Your task to perform on an android device: What is the news today? Image 0: 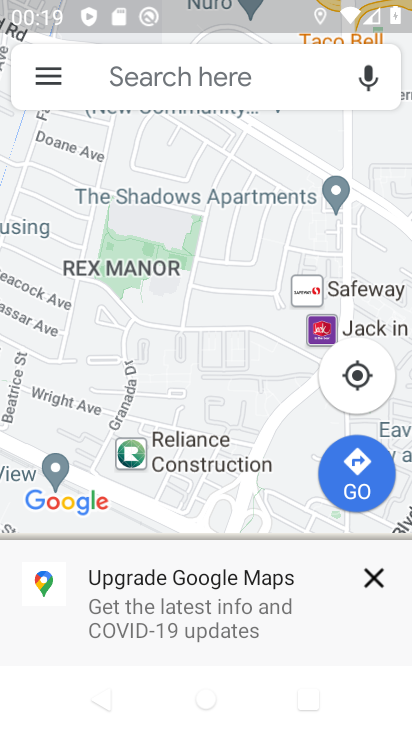
Step 0: press back button
Your task to perform on an android device: What is the news today? Image 1: 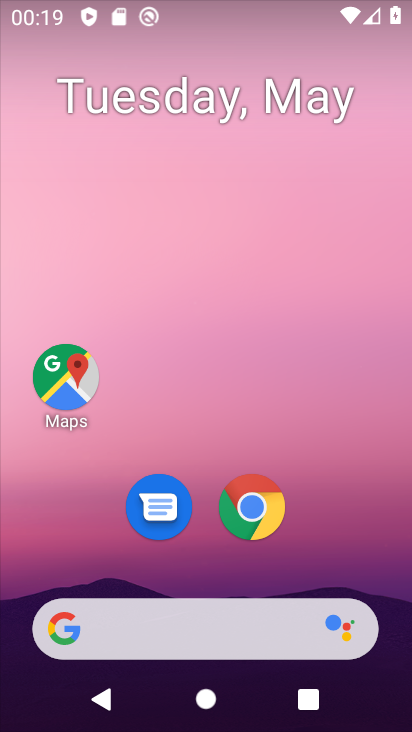
Step 1: press back button
Your task to perform on an android device: What is the news today? Image 2: 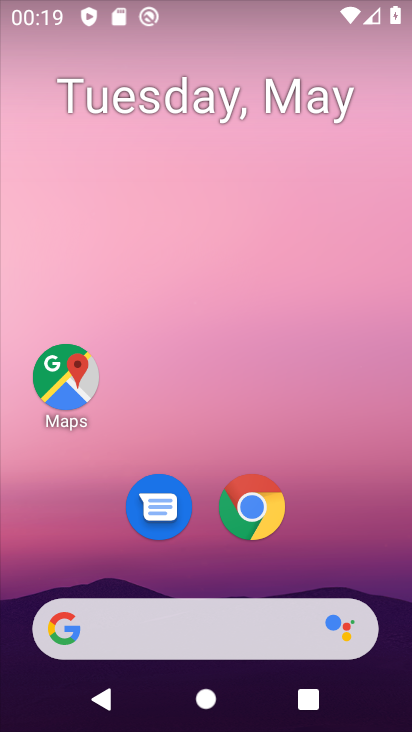
Step 2: drag from (184, 582) to (221, 273)
Your task to perform on an android device: What is the news today? Image 3: 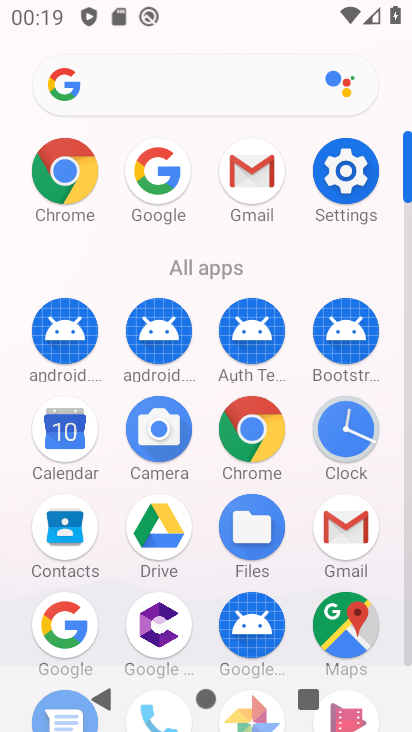
Step 3: click (75, 622)
Your task to perform on an android device: What is the news today? Image 4: 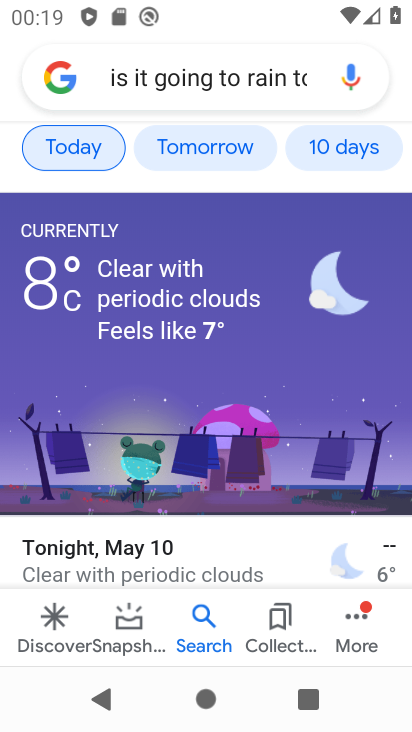
Step 4: click (300, 79)
Your task to perform on an android device: What is the news today? Image 5: 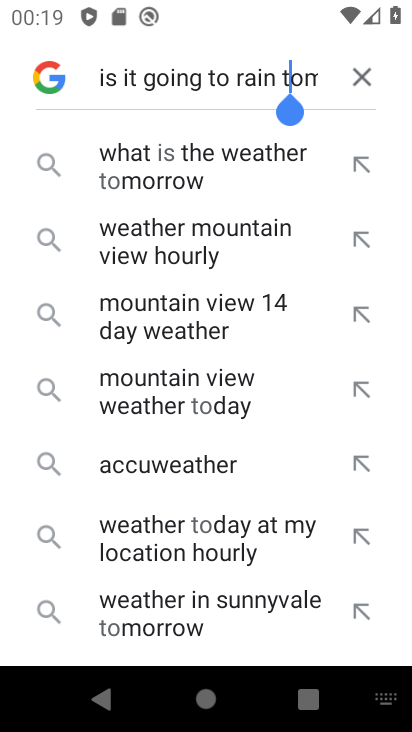
Step 5: click (361, 76)
Your task to perform on an android device: What is the news today? Image 6: 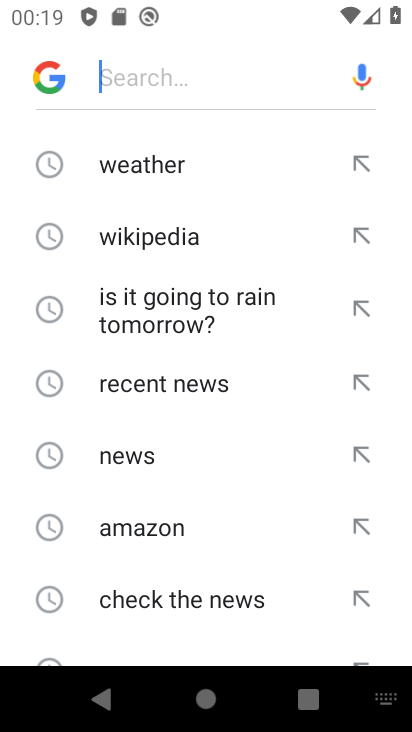
Step 6: click (228, 74)
Your task to perform on an android device: What is the news today? Image 7: 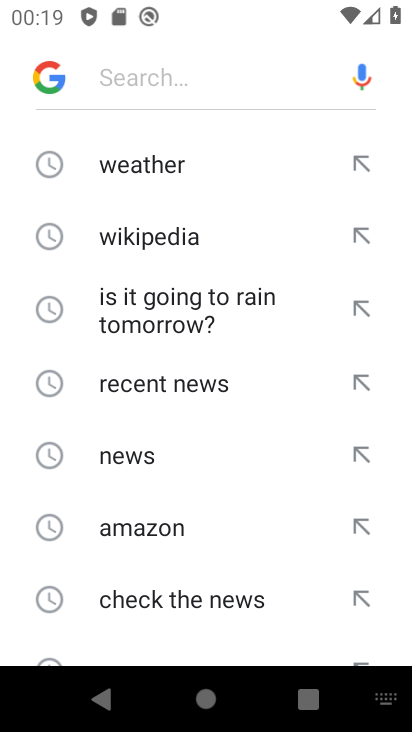
Step 7: drag from (167, 605) to (205, 281)
Your task to perform on an android device: What is the news today? Image 8: 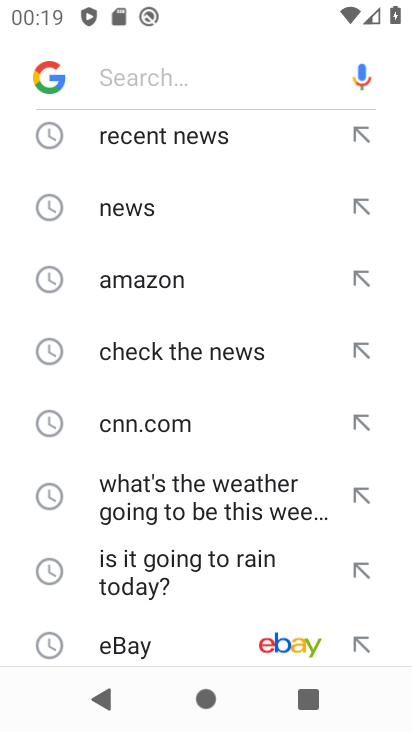
Step 8: drag from (185, 632) to (243, 348)
Your task to perform on an android device: What is the news today? Image 9: 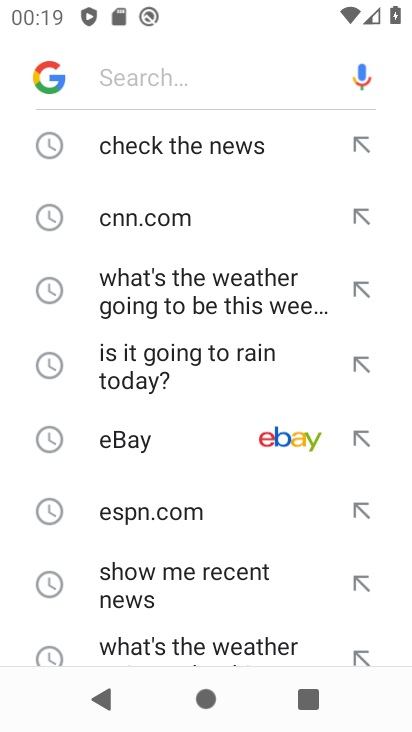
Step 9: drag from (235, 638) to (274, 371)
Your task to perform on an android device: What is the news today? Image 10: 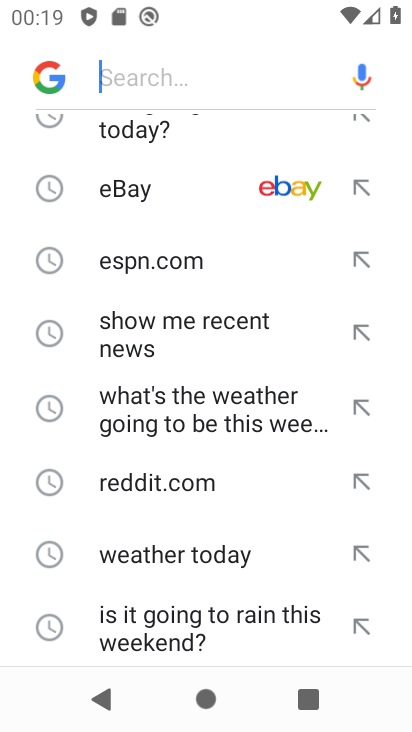
Step 10: drag from (193, 576) to (234, 345)
Your task to perform on an android device: What is the news today? Image 11: 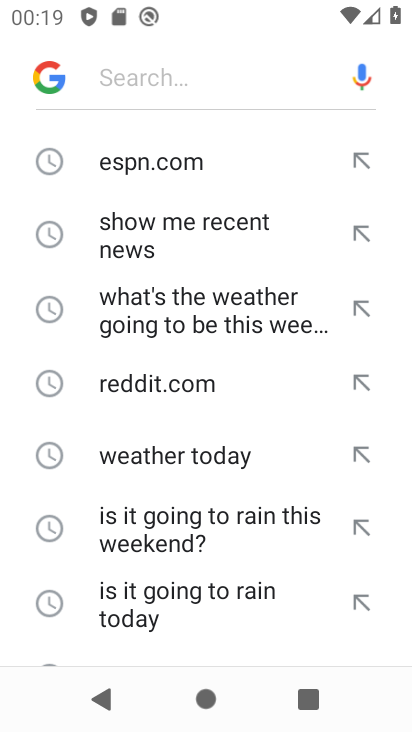
Step 11: drag from (207, 604) to (261, 291)
Your task to perform on an android device: What is the news today? Image 12: 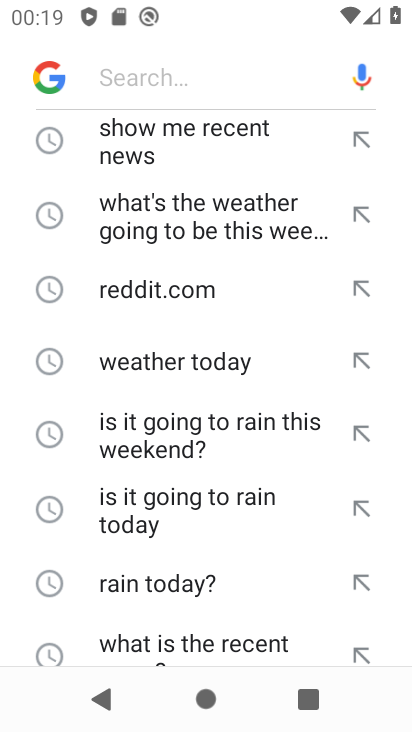
Step 12: drag from (175, 644) to (235, 378)
Your task to perform on an android device: What is the news today? Image 13: 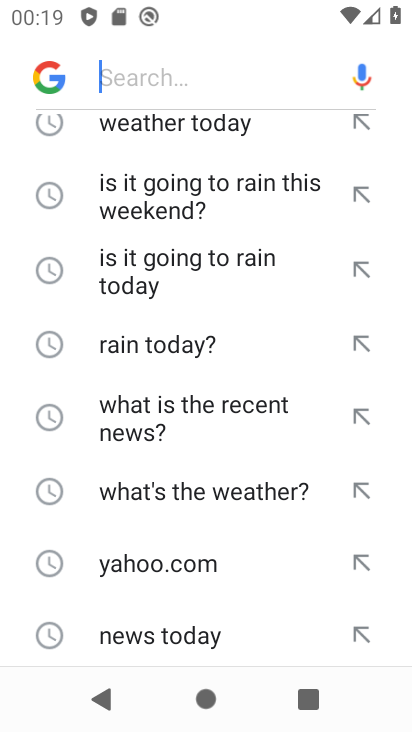
Step 13: click (176, 649)
Your task to perform on an android device: What is the news today? Image 14: 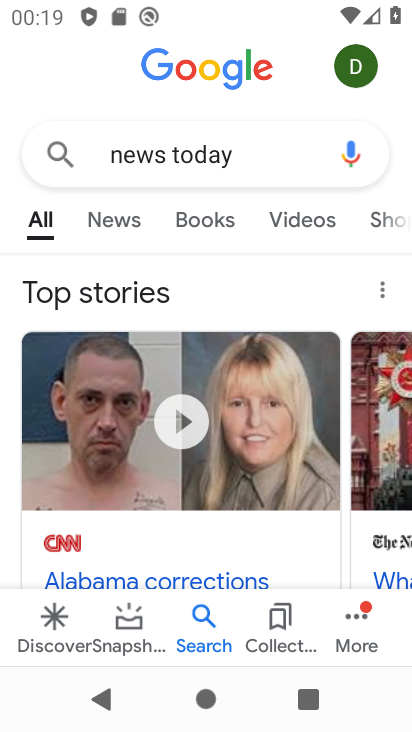
Step 14: task complete